Your task to perform on an android device: Go to internet settings Image 0: 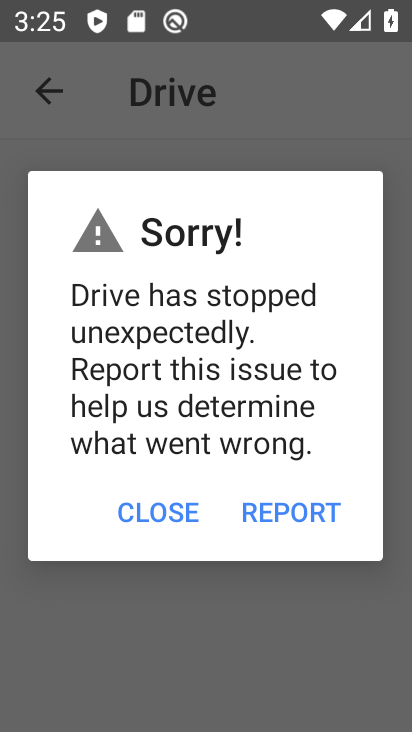
Step 0: click (180, 497)
Your task to perform on an android device: Go to internet settings Image 1: 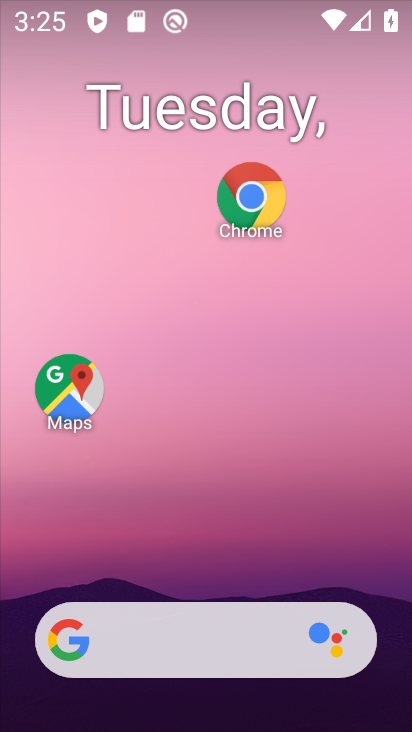
Step 1: drag from (247, 545) to (187, 246)
Your task to perform on an android device: Go to internet settings Image 2: 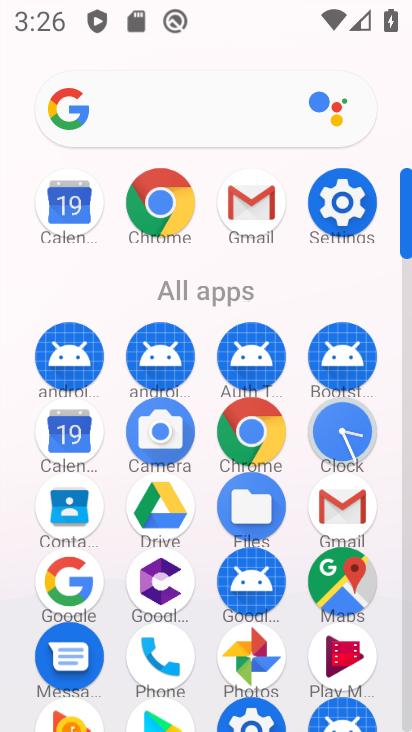
Step 2: click (341, 201)
Your task to perform on an android device: Go to internet settings Image 3: 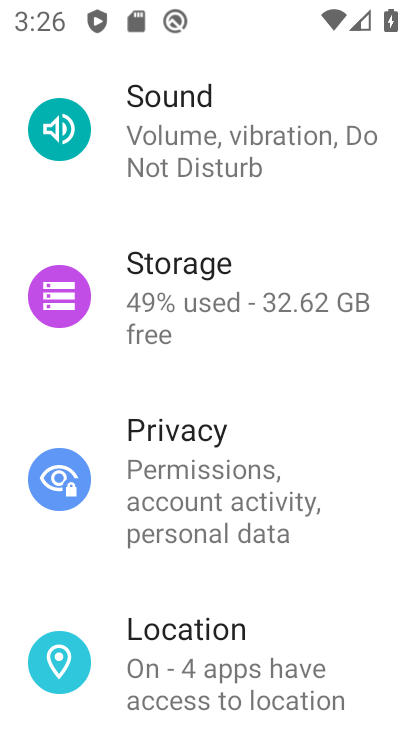
Step 3: drag from (243, 126) to (246, 679)
Your task to perform on an android device: Go to internet settings Image 4: 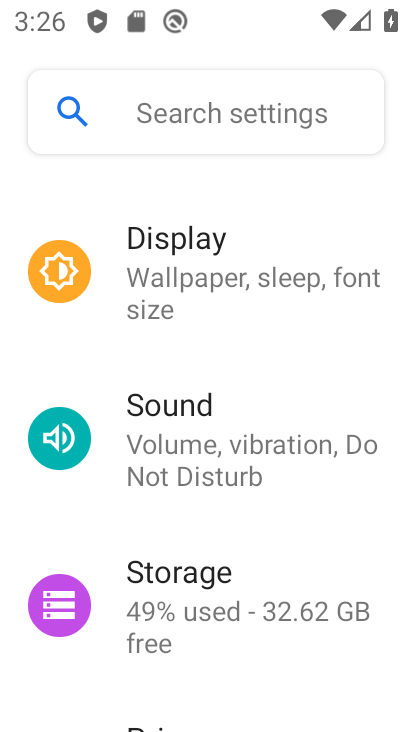
Step 4: drag from (281, 293) to (338, 693)
Your task to perform on an android device: Go to internet settings Image 5: 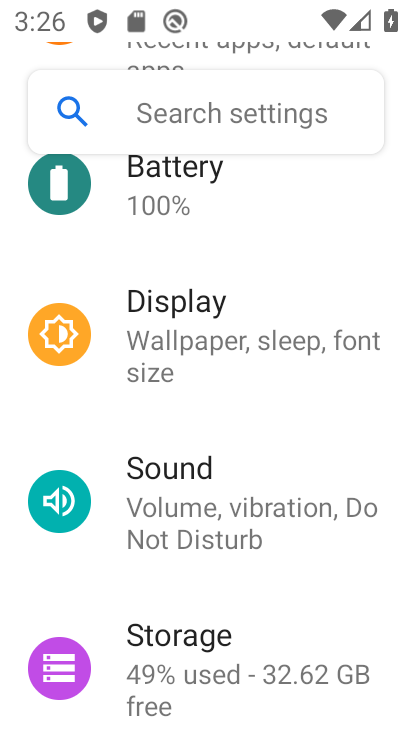
Step 5: drag from (268, 218) to (324, 728)
Your task to perform on an android device: Go to internet settings Image 6: 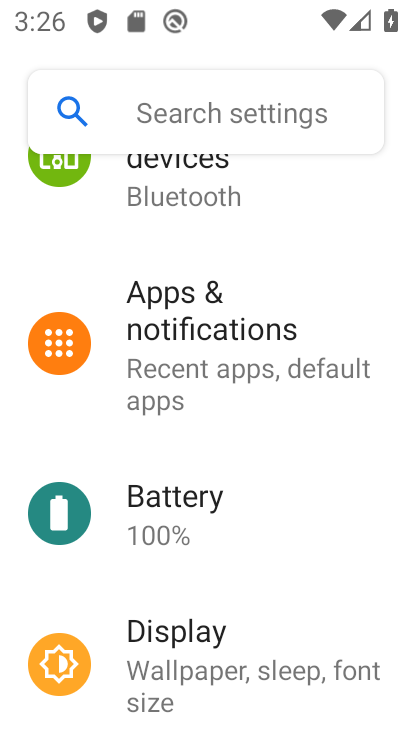
Step 6: drag from (304, 262) to (343, 716)
Your task to perform on an android device: Go to internet settings Image 7: 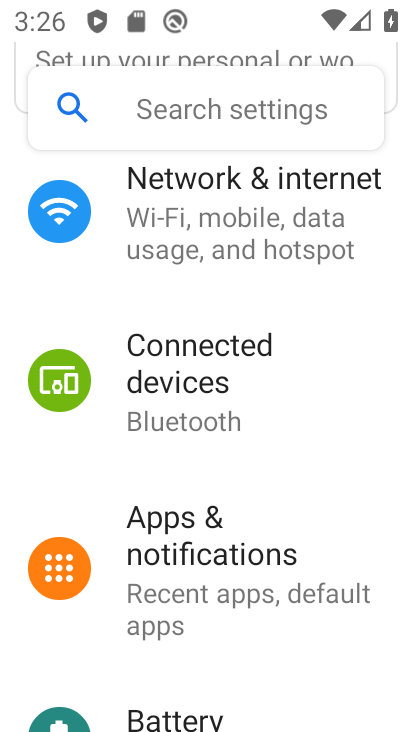
Step 7: click (255, 192)
Your task to perform on an android device: Go to internet settings Image 8: 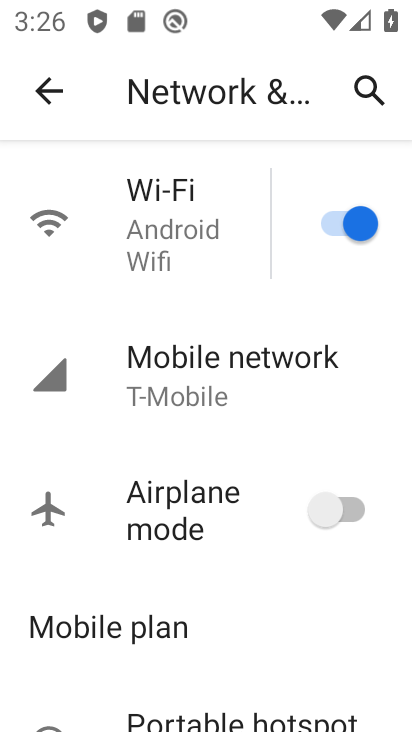
Step 8: drag from (211, 715) to (200, 383)
Your task to perform on an android device: Go to internet settings Image 9: 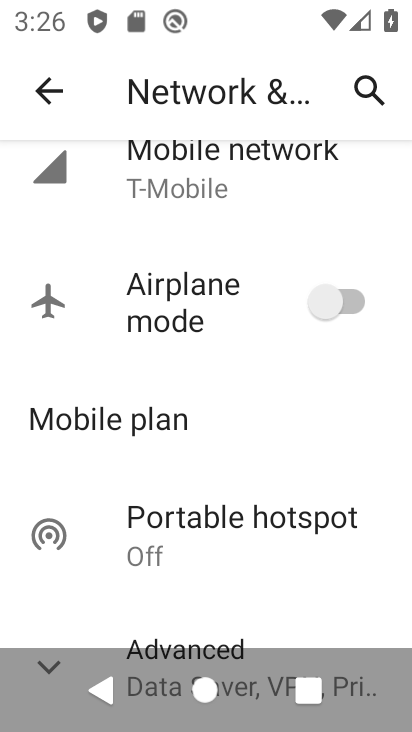
Step 9: drag from (223, 628) to (215, 355)
Your task to perform on an android device: Go to internet settings Image 10: 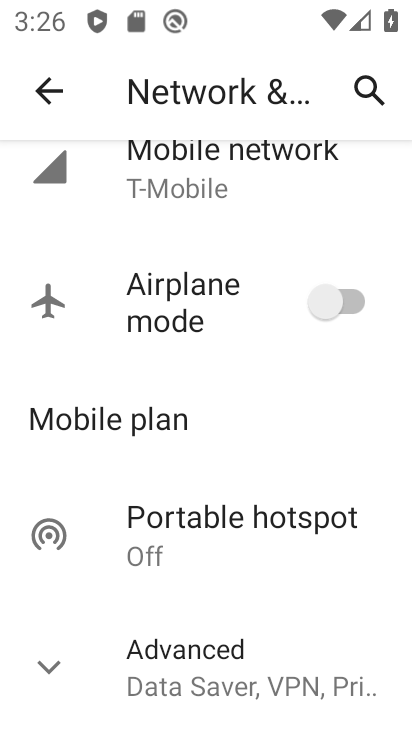
Step 10: click (46, 655)
Your task to perform on an android device: Go to internet settings Image 11: 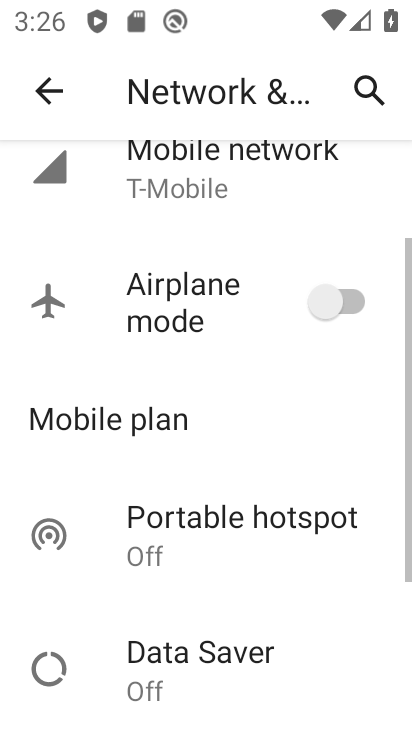
Step 11: task complete